Your task to perform on an android device: See recent photos Image 0: 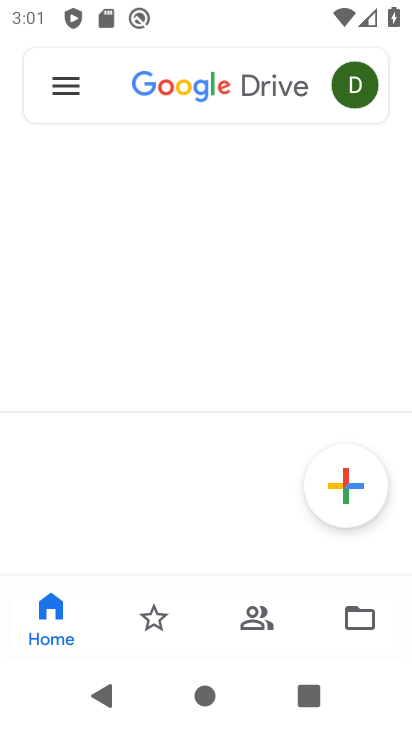
Step 0: drag from (358, 501) to (343, 206)
Your task to perform on an android device: See recent photos Image 1: 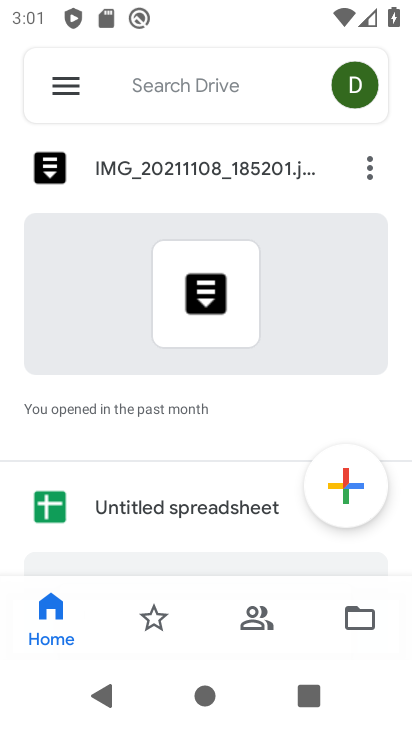
Step 1: press home button
Your task to perform on an android device: See recent photos Image 2: 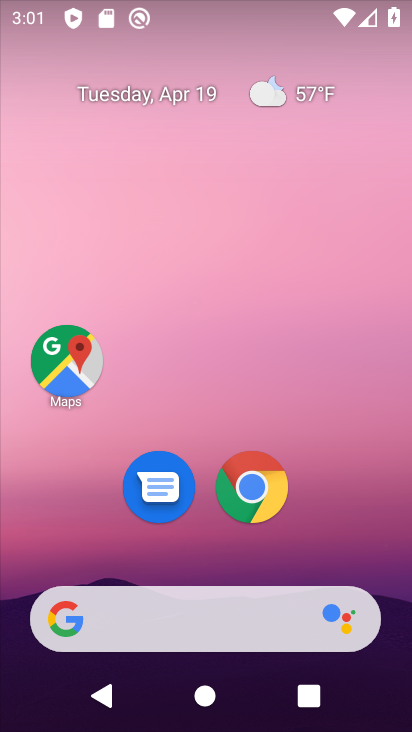
Step 2: drag from (334, 526) to (335, 138)
Your task to perform on an android device: See recent photos Image 3: 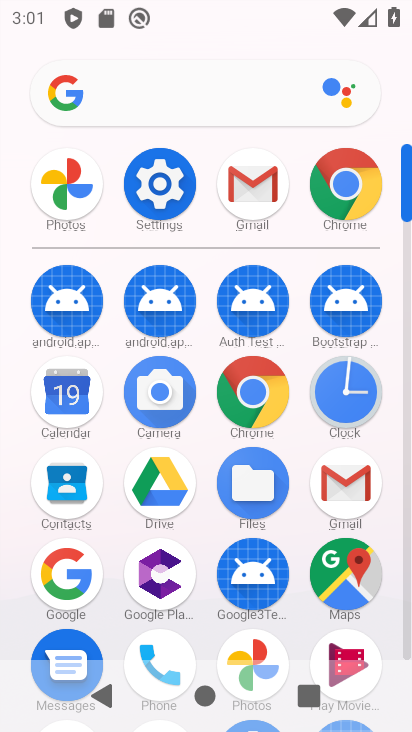
Step 3: click (248, 643)
Your task to perform on an android device: See recent photos Image 4: 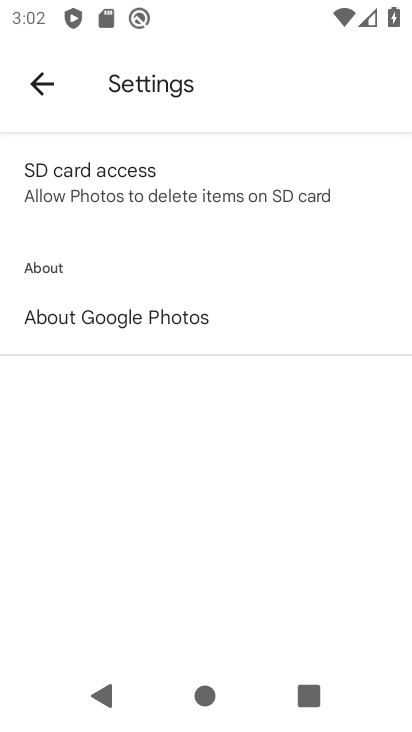
Step 4: click (48, 81)
Your task to perform on an android device: See recent photos Image 5: 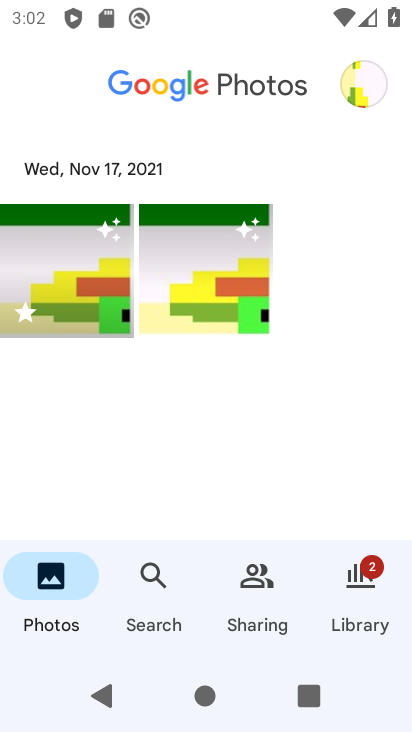
Step 5: task complete